Your task to perform on an android device: toggle airplane mode Image 0: 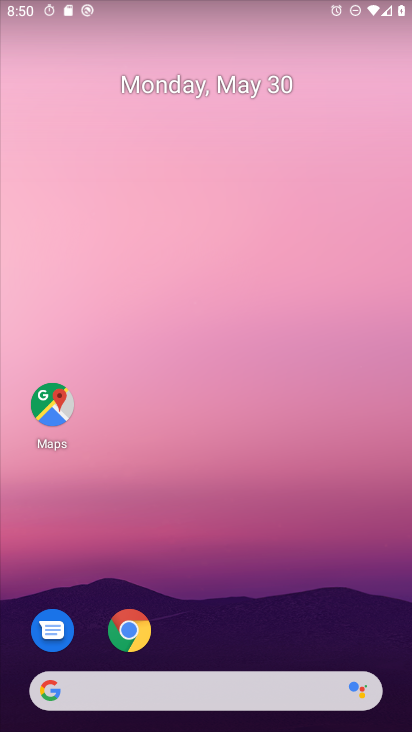
Step 0: drag from (234, 4) to (176, 445)
Your task to perform on an android device: toggle airplane mode Image 1: 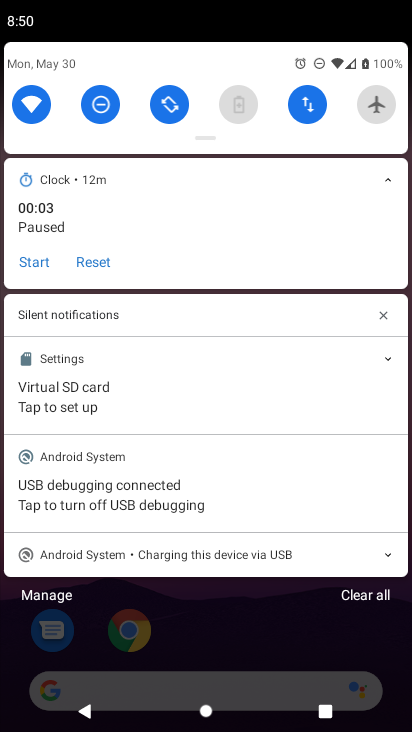
Step 1: click (366, 113)
Your task to perform on an android device: toggle airplane mode Image 2: 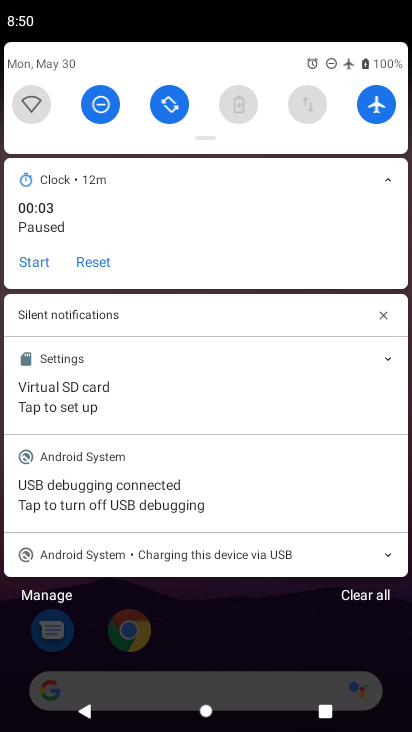
Step 2: task complete